Your task to perform on an android device: remove spam from my inbox in the gmail app Image 0: 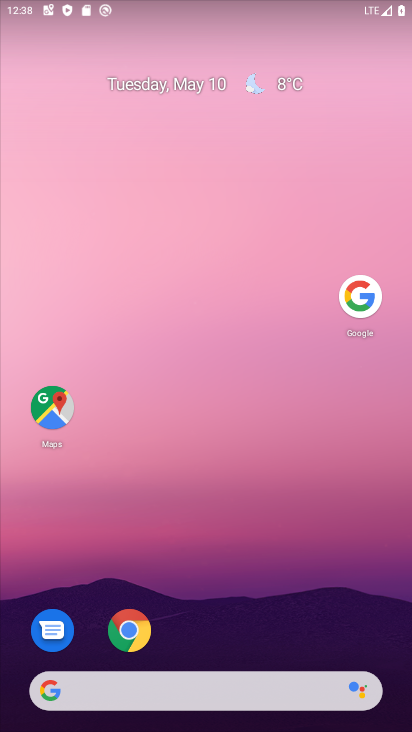
Step 0: drag from (178, 696) to (317, 175)
Your task to perform on an android device: remove spam from my inbox in the gmail app Image 1: 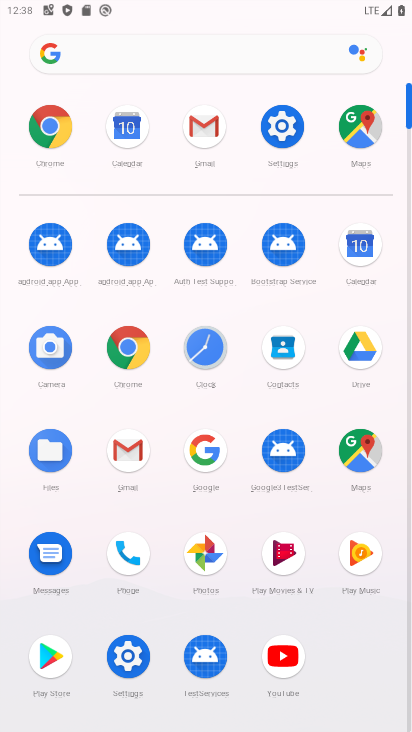
Step 1: click (206, 122)
Your task to perform on an android device: remove spam from my inbox in the gmail app Image 2: 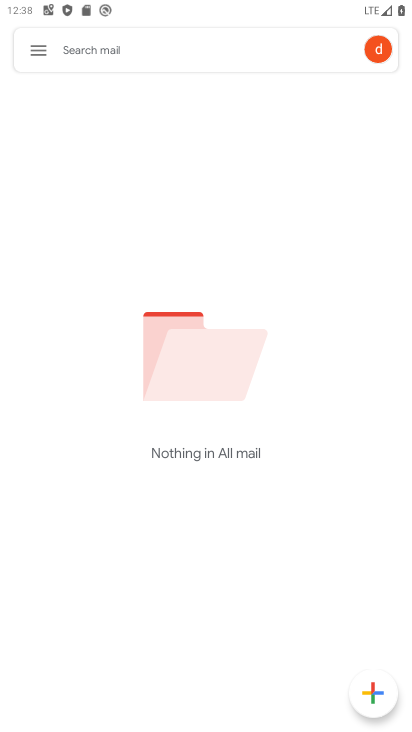
Step 2: click (48, 46)
Your task to perform on an android device: remove spam from my inbox in the gmail app Image 3: 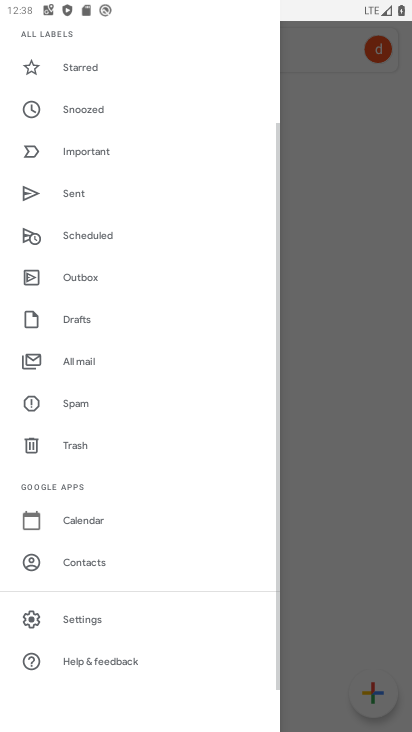
Step 3: click (79, 408)
Your task to perform on an android device: remove spam from my inbox in the gmail app Image 4: 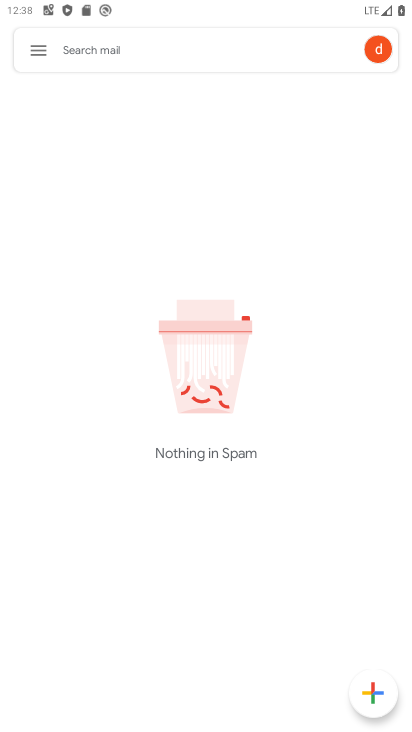
Step 4: task complete